Your task to perform on an android device: Open Google Image 0: 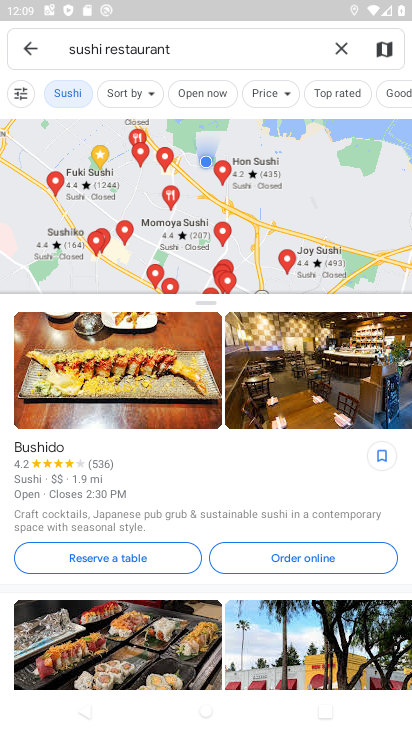
Step 0: press home button
Your task to perform on an android device: Open Google Image 1: 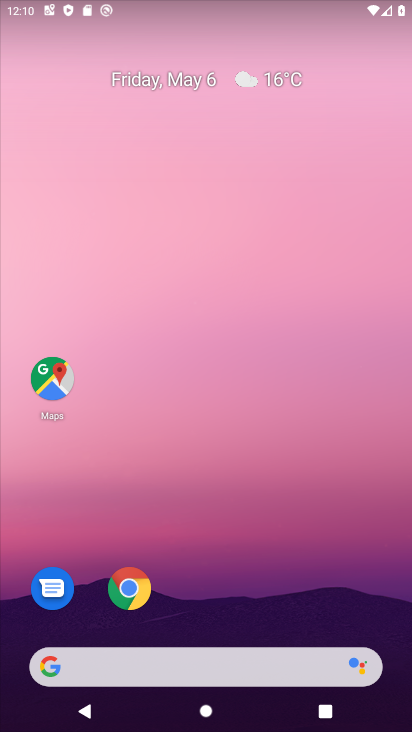
Step 1: drag from (281, 506) to (312, 37)
Your task to perform on an android device: Open Google Image 2: 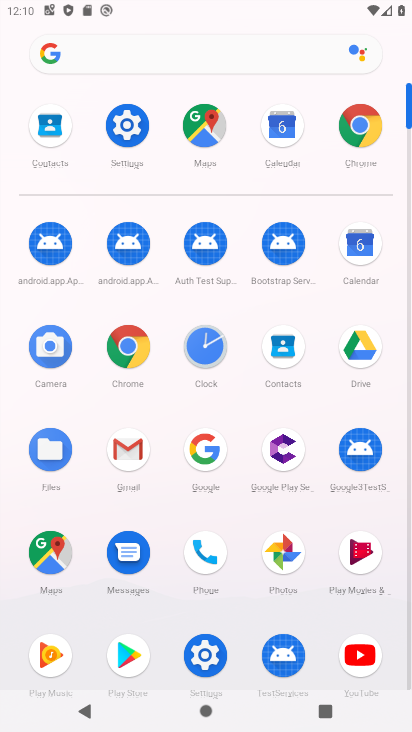
Step 2: click (199, 440)
Your task to perform on an android device: Open Google Image 3: 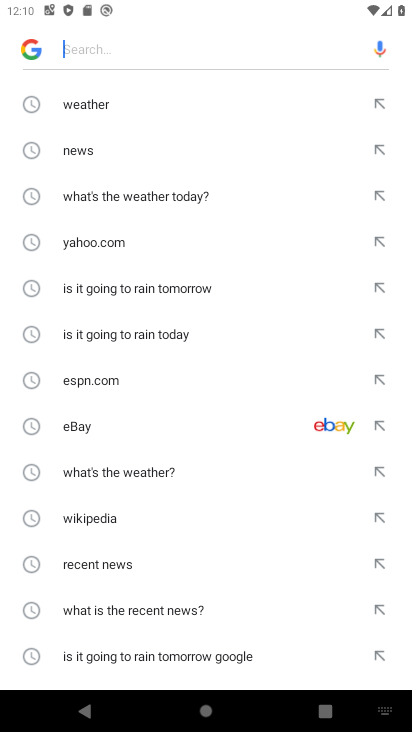
Step 3: click (30, 46)
Your task to perform on an android device: Open Google Image 4: 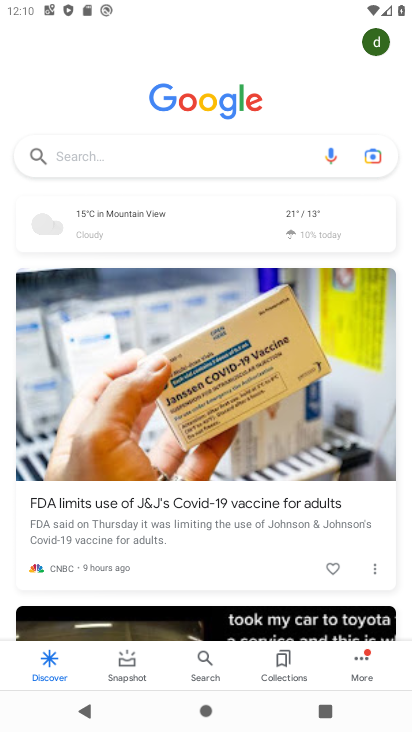
Step 4: task complete